Your task to perform on an android device: What's the weather going to be this weekend? Image 0: 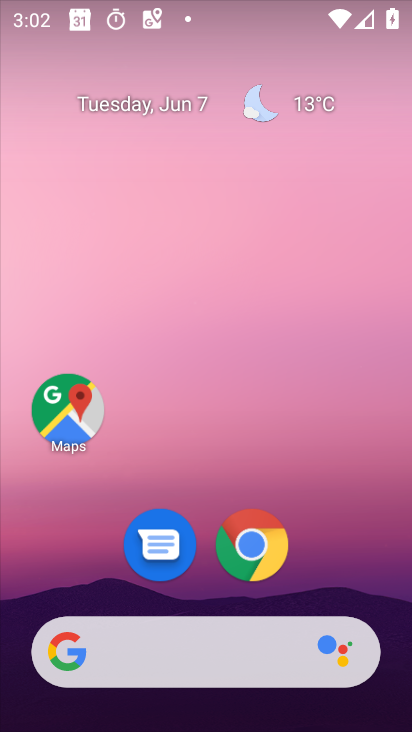
Step 0: click (281, 99)
Your task to perform on an android device: What's the weather going to be this weekend? Image 1: 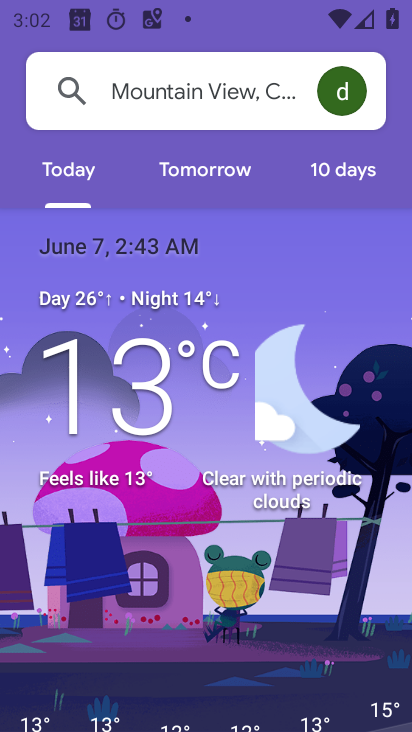
Step 1: click (331, 174)
Your task to perform on an android device: What's the weather going to be this weekend? Image 2: 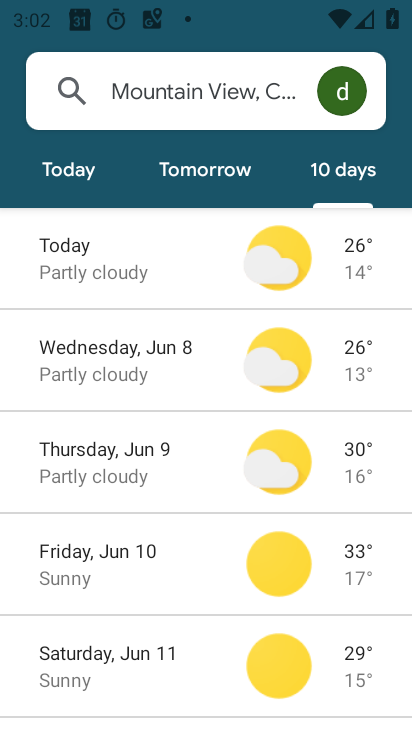
Step 2: task complete